Your task to perform on an android device: Go to location settings Image 0: 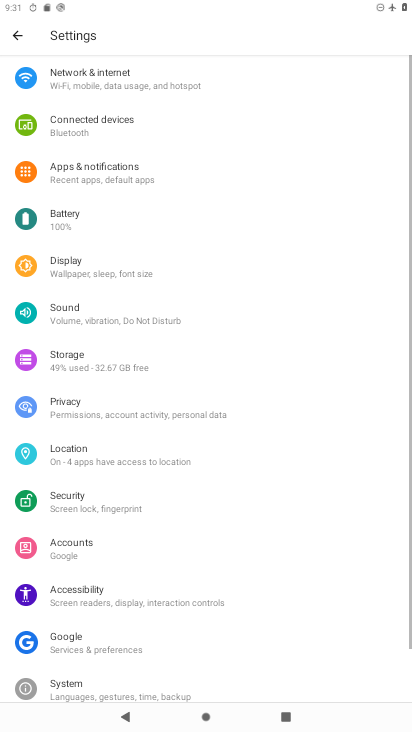
Step 0: click (135, 458)
Your task to perform on an android device: Go to location settings Image 1: 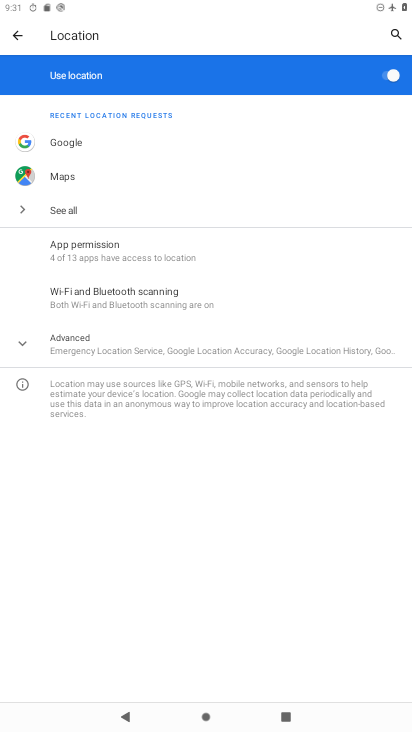
Step 1: task complete